Your task to perform on an android device: turn on priority inbox in the gmail app Image 0: 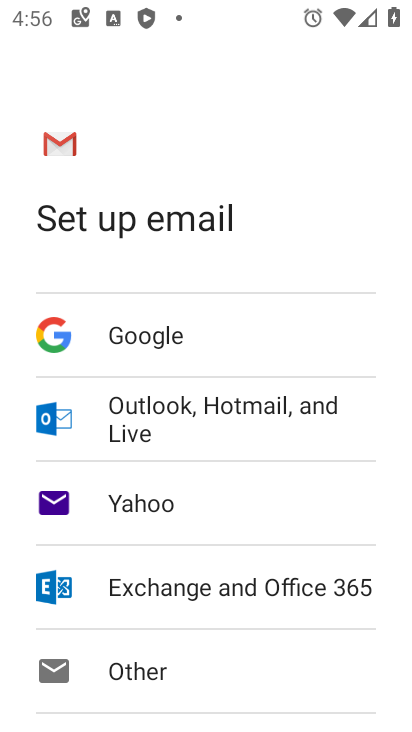
Step 0: press home button
Your task to perform on an android device: turn on priority inbox in the gmail app Image 1: 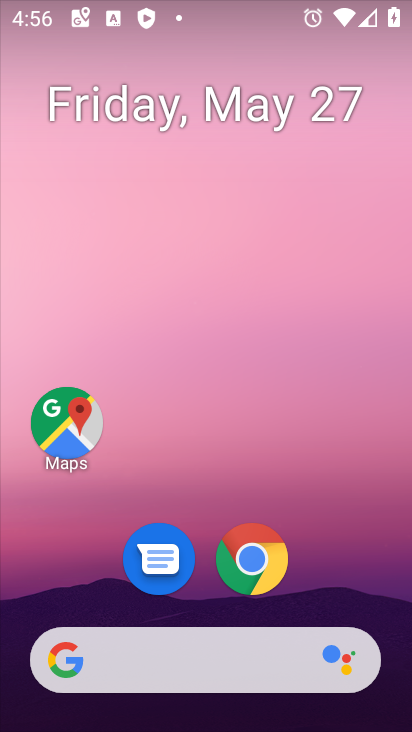
Step 1: drag from (272, 536) to (272, 56)
Your task to perform on an android device: turn on priority inbox in the gmail app Image 2: 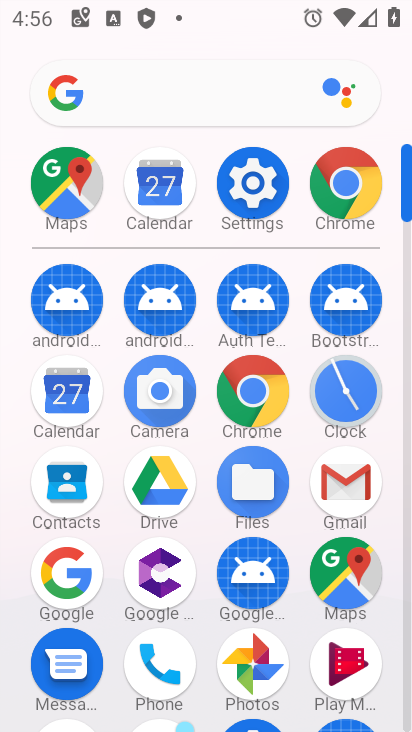
Step 2: click (360, 498)
Your task to perform on an android device: turn on priority inbox in the gmail app Image 3: 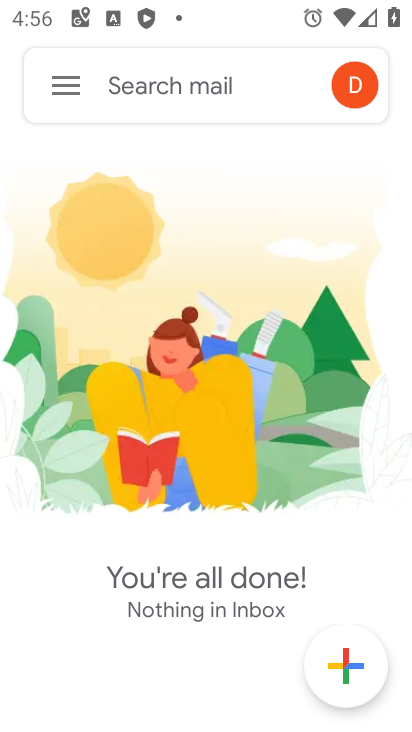
Step 3: click (62, 81)
Your task to perform on an android device: turn on priority inbox in the gmail app Image 4: 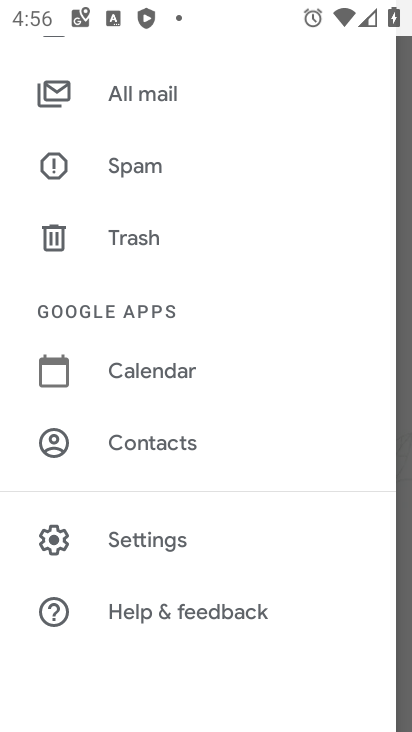
Step 4: click (127, 547)
Your task to perform on an android device: turn on priority inbox in the gmail app Image 5: 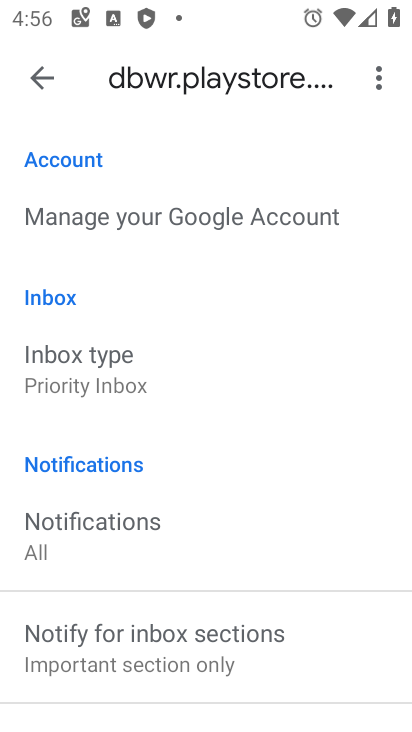
Step 5: task complete